Your task to perform on an android device: empty trash in the gmail app Image 0: 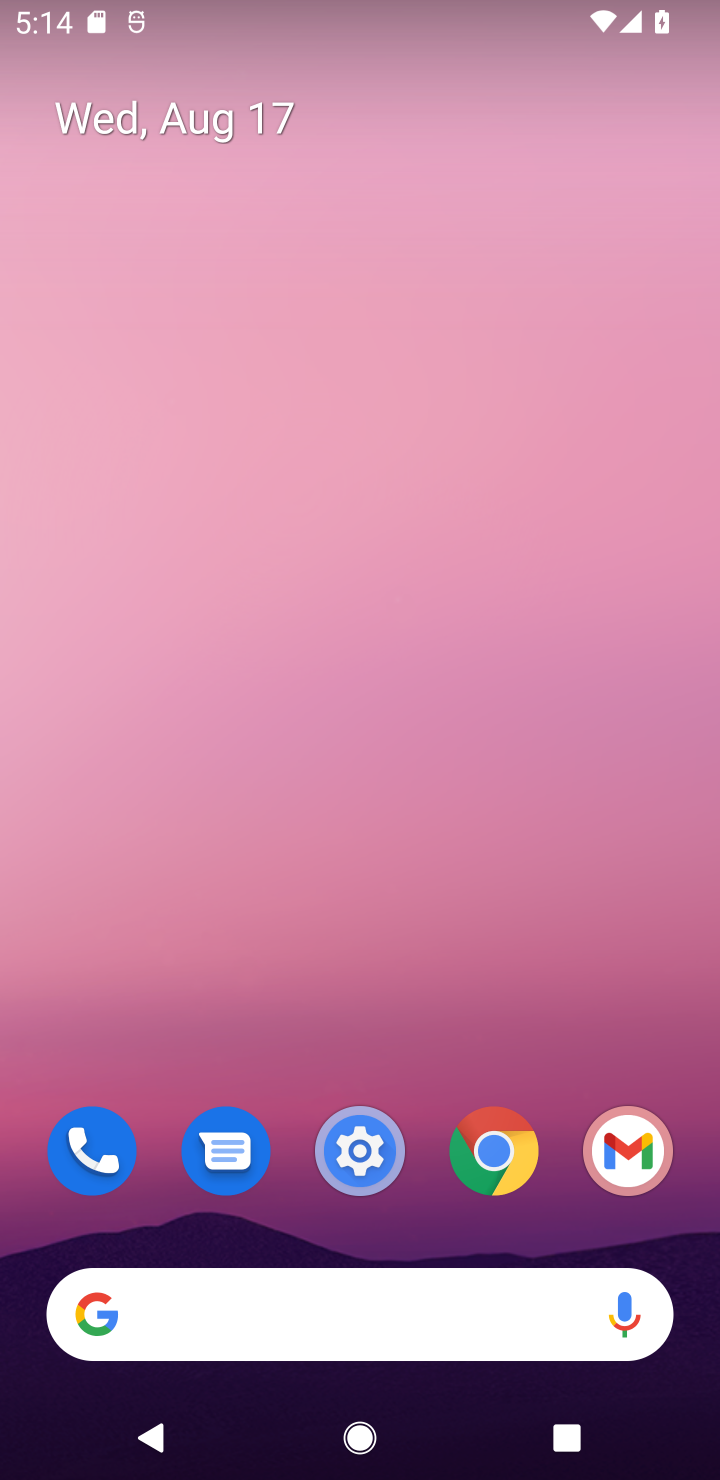
Step 0: press home button
Your task to perform on an android device: empty trash in the gmail app Image 1: 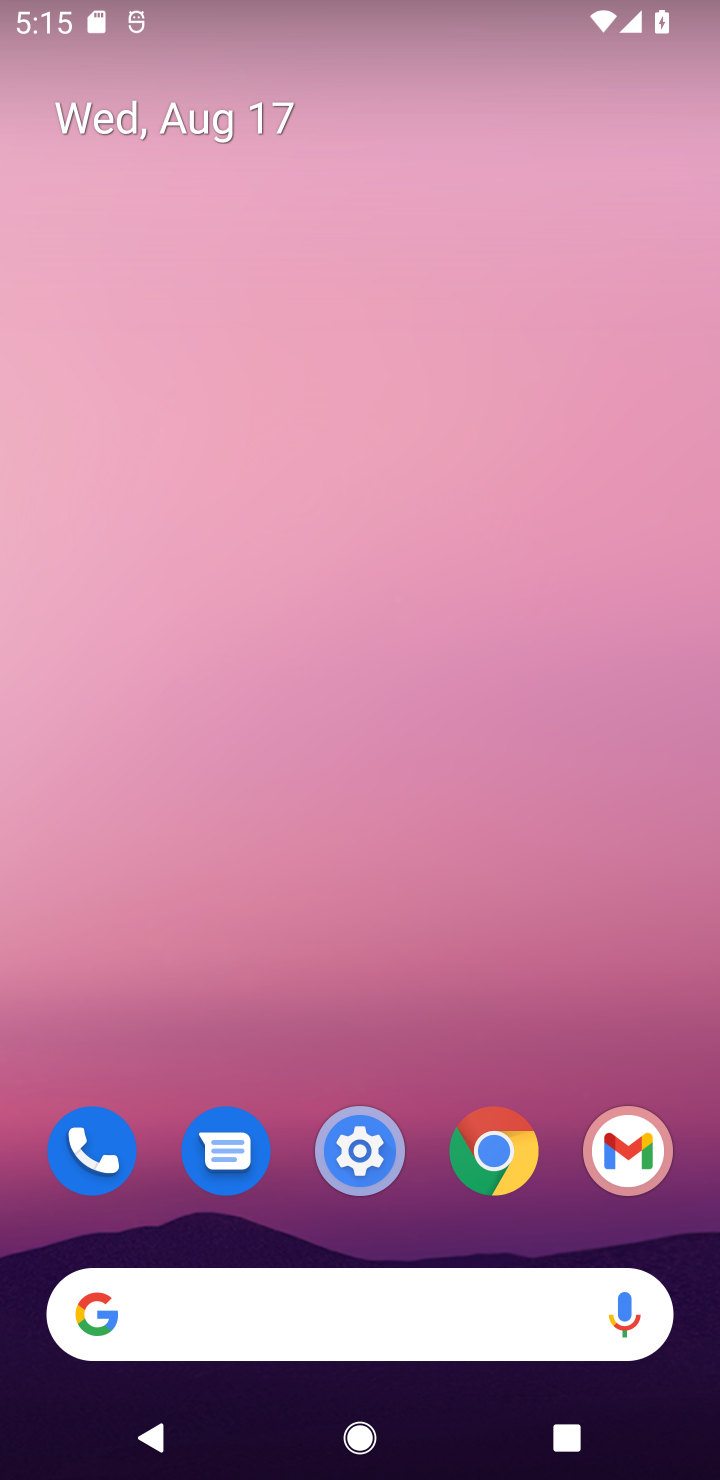
Step 1: click (626, 1152)
Your task to perform on an android device: empty trash in the gmail app Image 2: 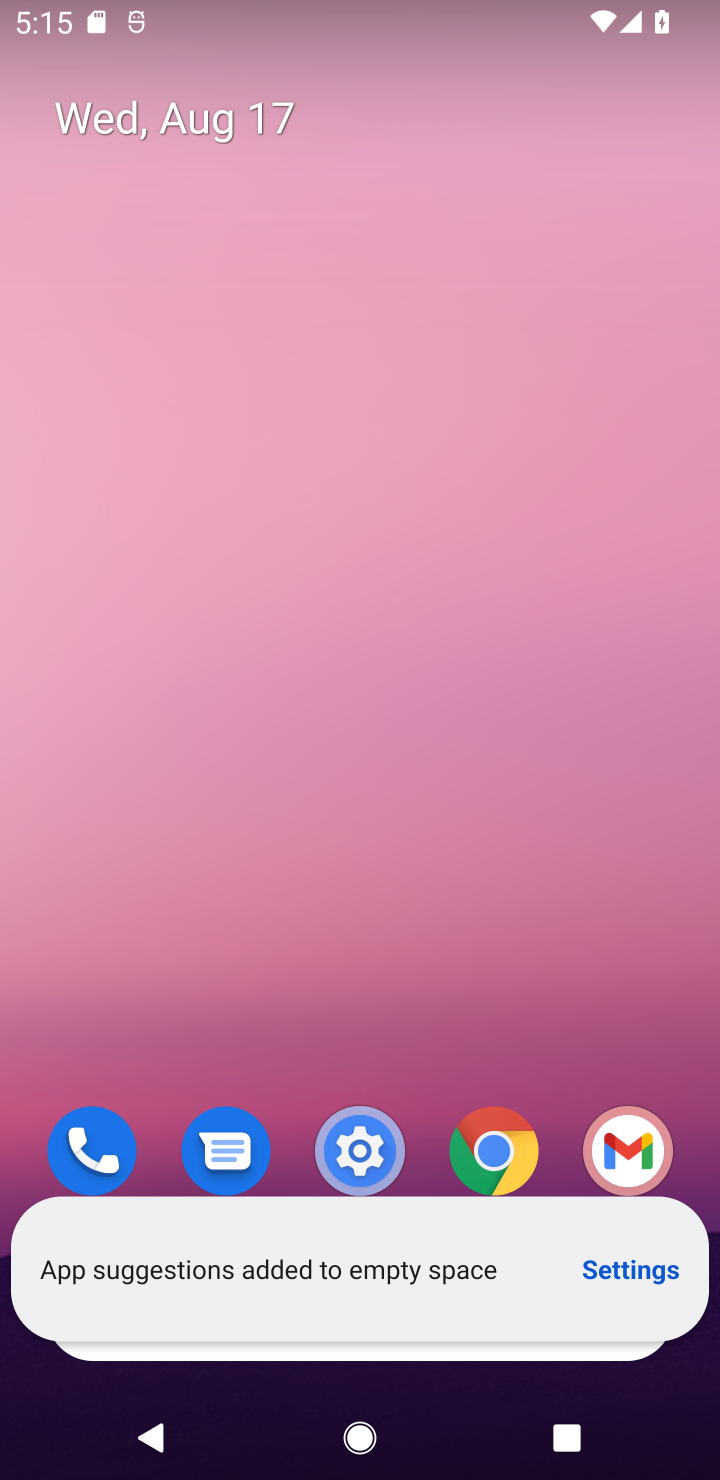
Step 2: click (626, 1152)
Your task to perform on an android device: empty trash in the gmail app Image 3: 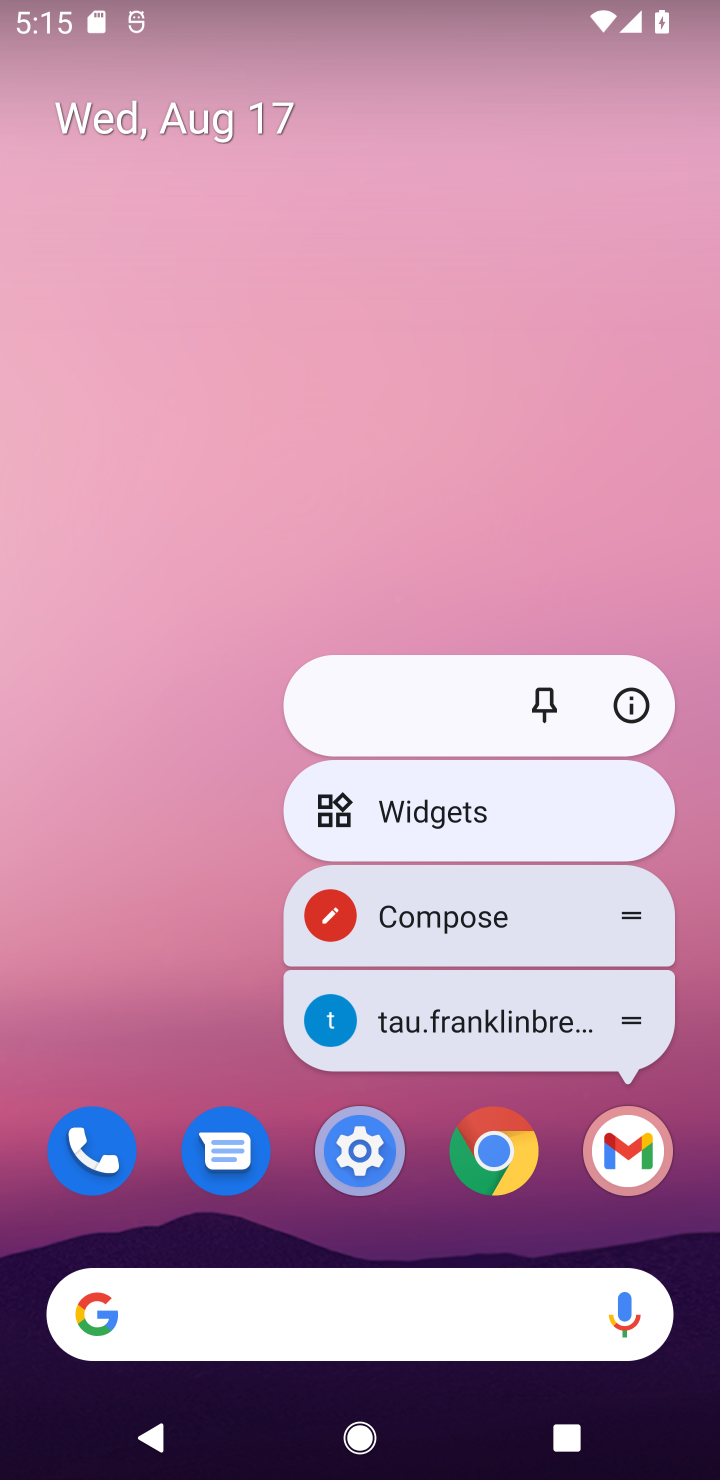
Step 3: click (634, 1154)
Your task to perform on an android device: empty trash in the gmail app Image 4: 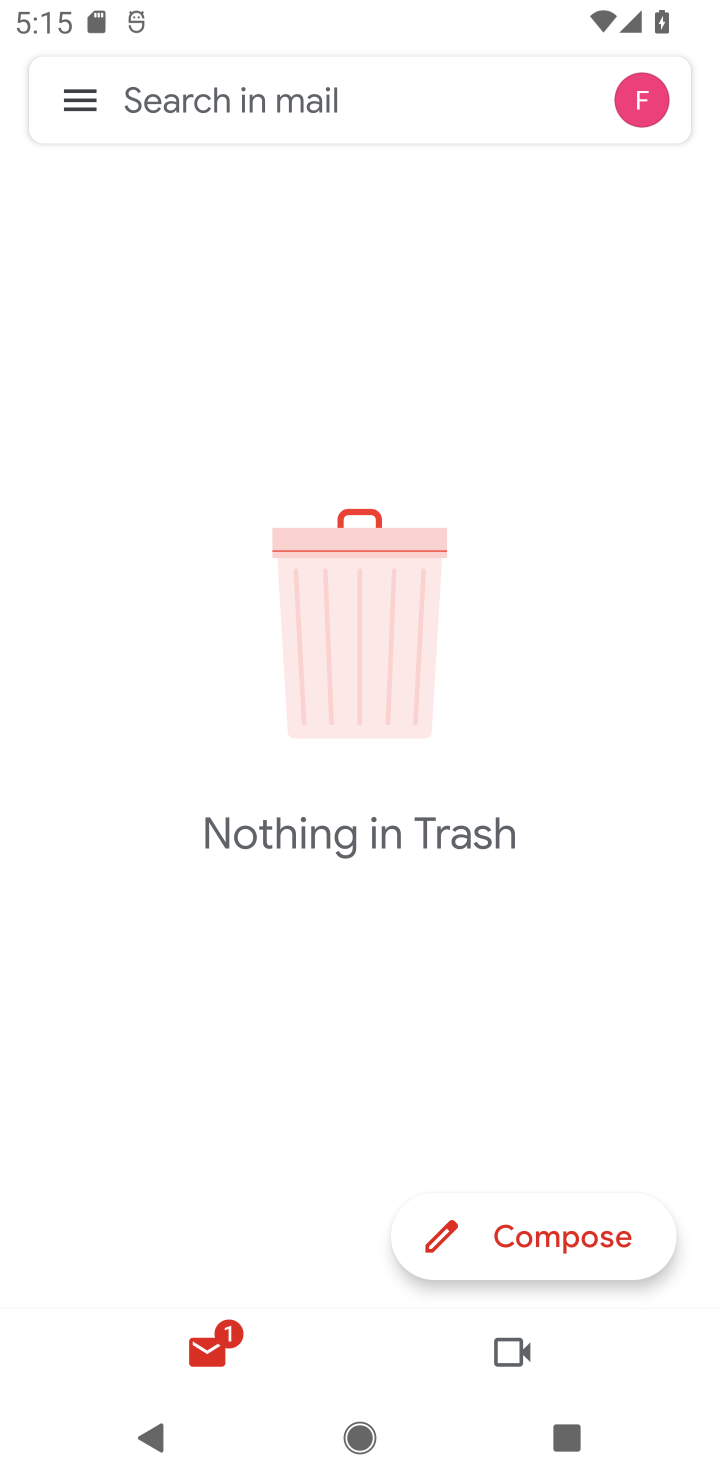
Step 4: task complete